Your task to perform on an android device: check the backup settings in the google photos Image 0: 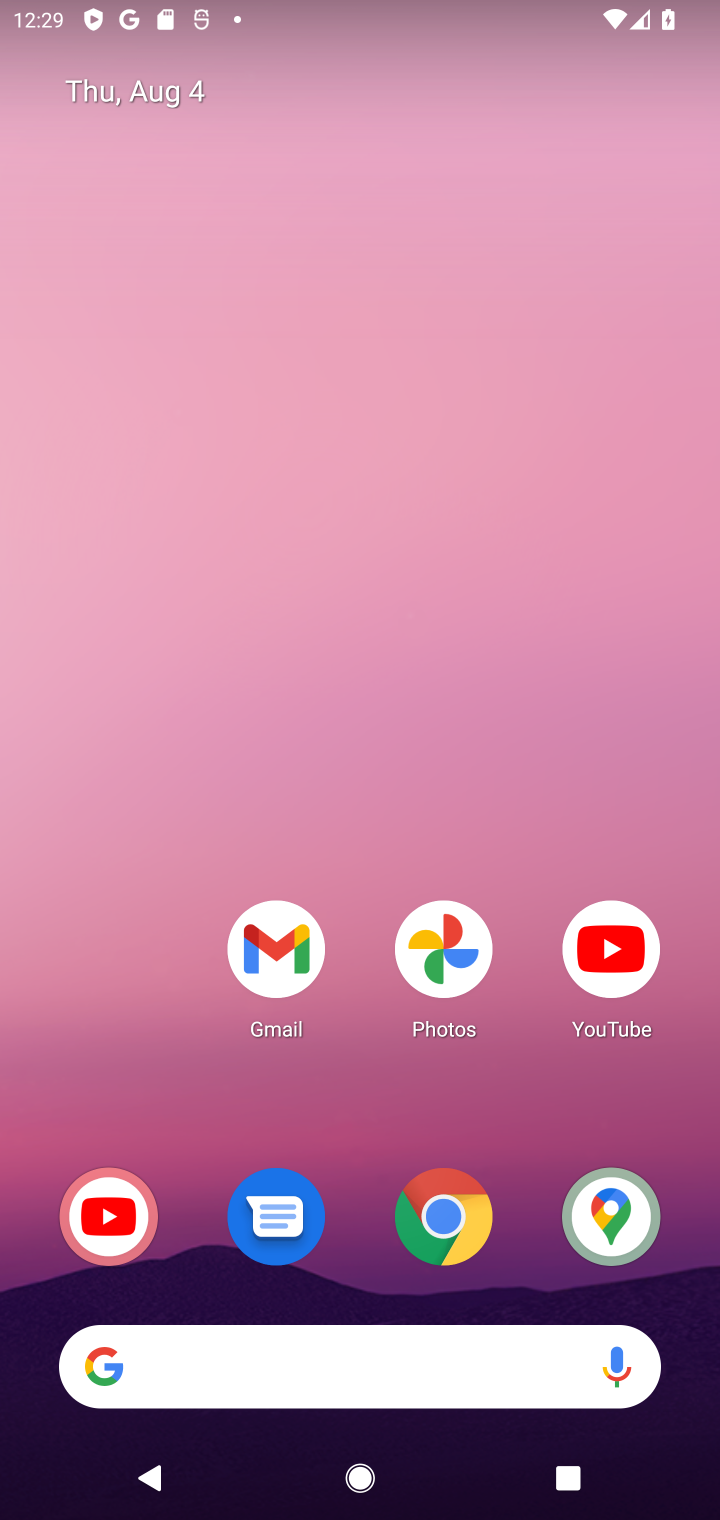
Step 0: click (439, 956)
Your task to perform on an android device: check the backup settings in the google photos Image 1: 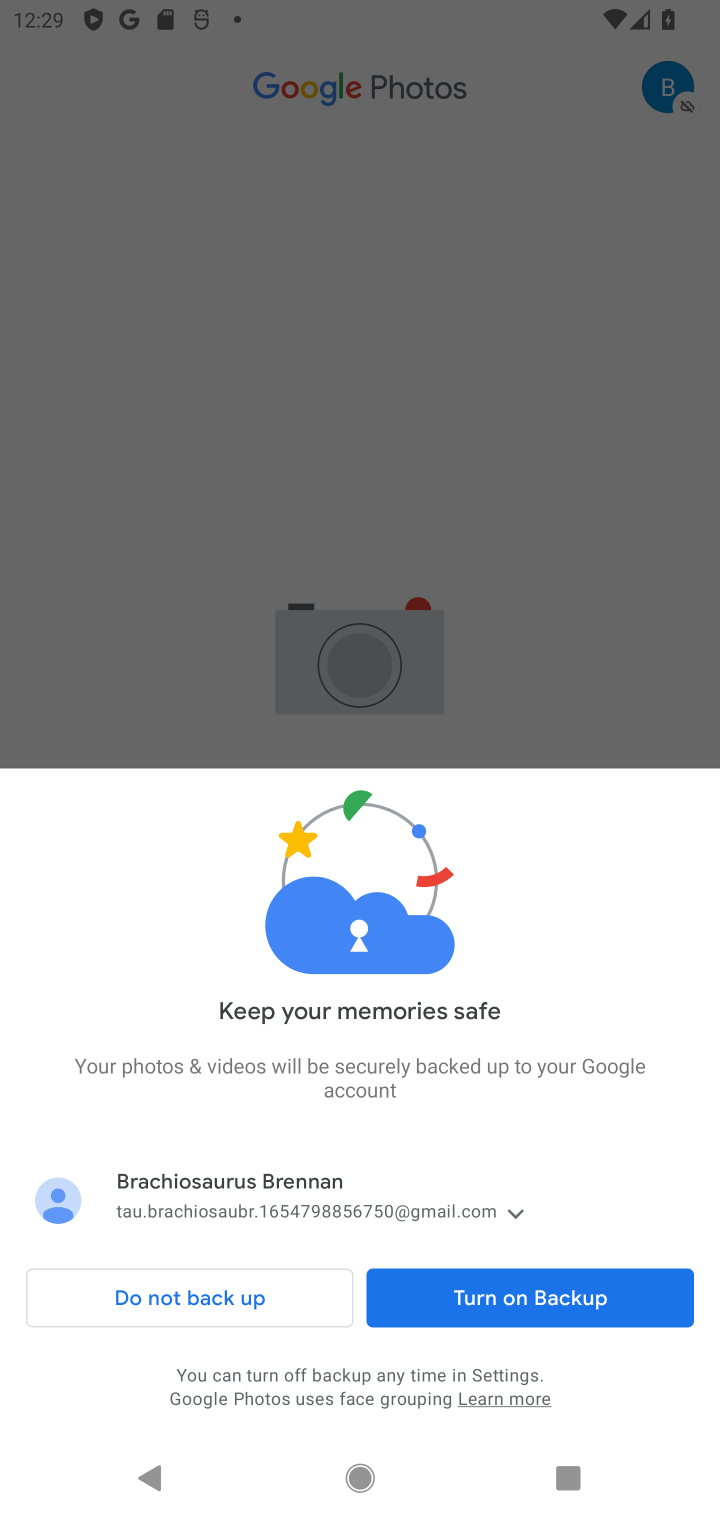
Step 1: click (218, 1304)
Your task to perform on an android device: check the backup settings in the google photos Image 2: 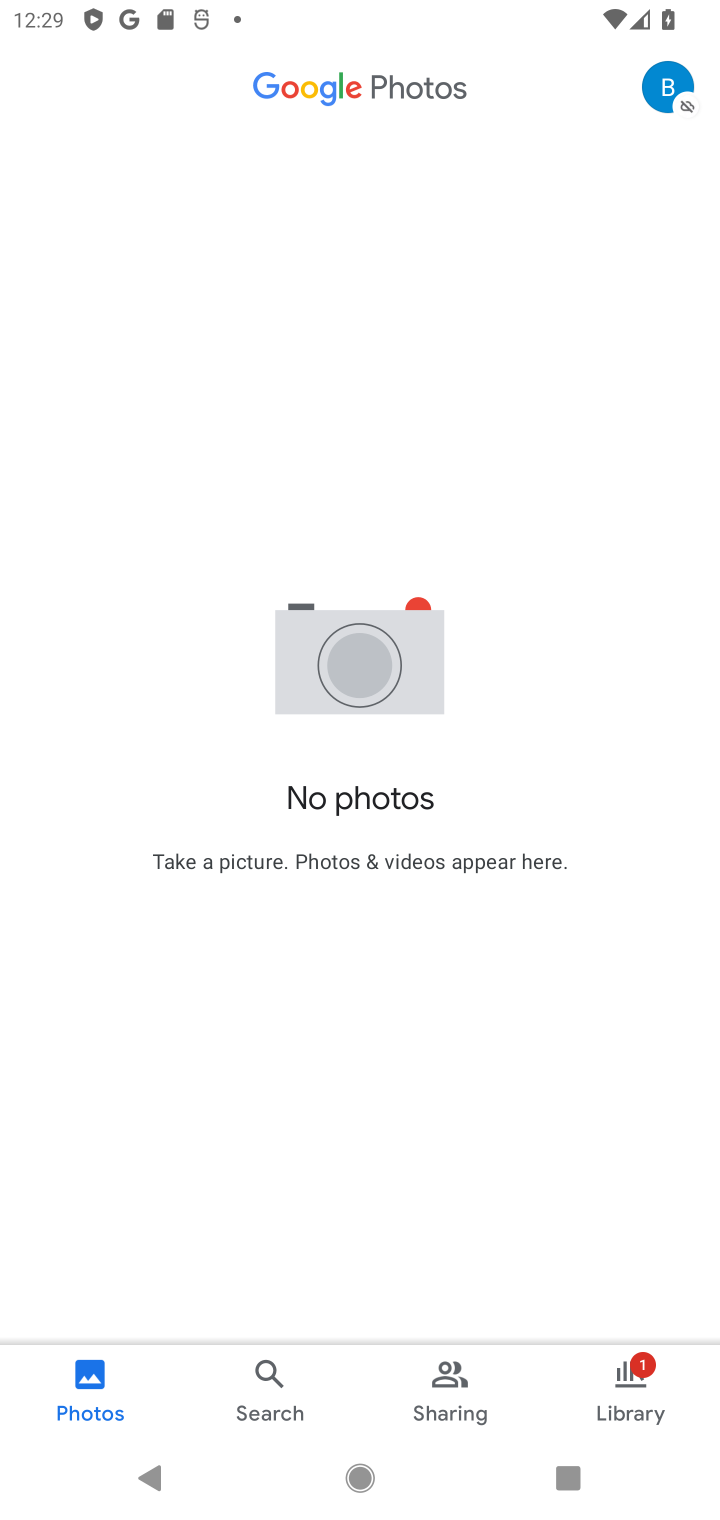
Step 2: task complete